Your task to perform on an android device: turn off translation in the chrome app Image 0: 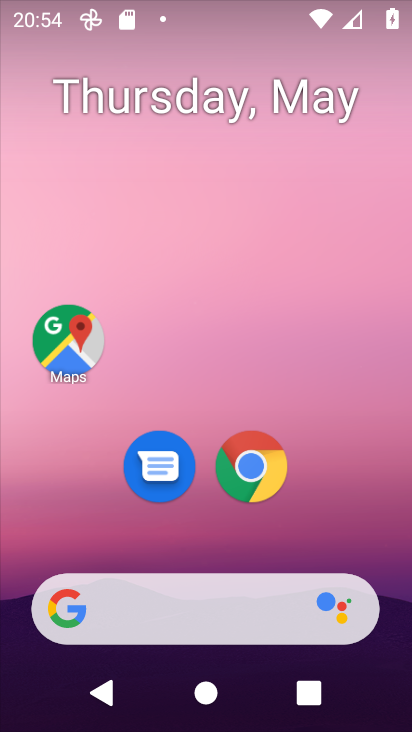
Step 0: click (258, 453)
Your task to perform on an android device: turn off translation in the chrome app Image 1: 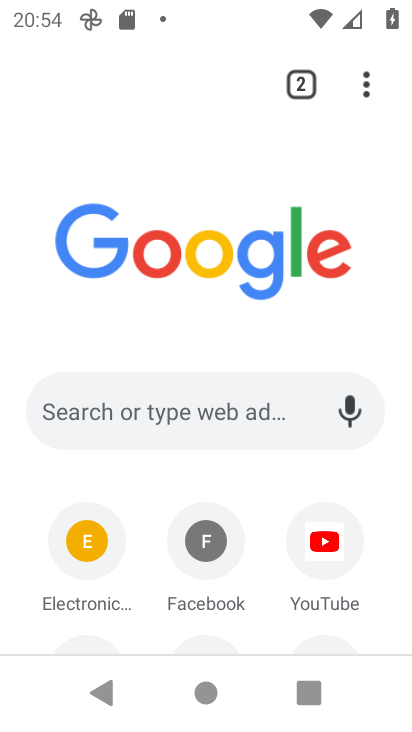
Step 1: task complete